Your task to perform on an android device: refresh tabs in the chrome app Image 0: 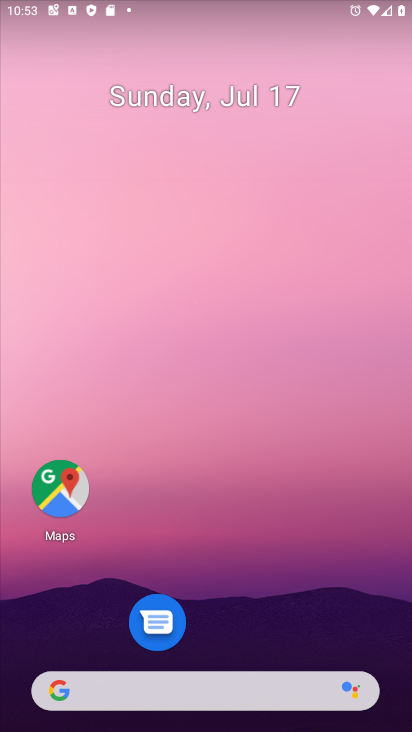
Step 0: drag from (267, 718) to (179, 154)
Your task to perform on an android device: refresh tabs in the chrome app Image 1: 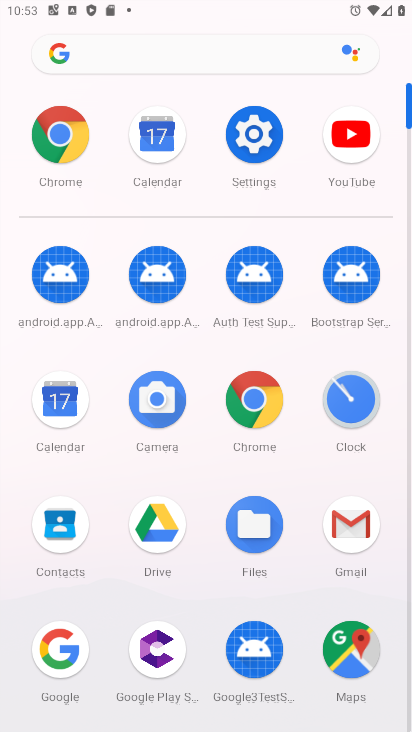
Step 1: click (56, 127)
Your task to perform on an android device: refresh tabs in the chrome app Image 2: 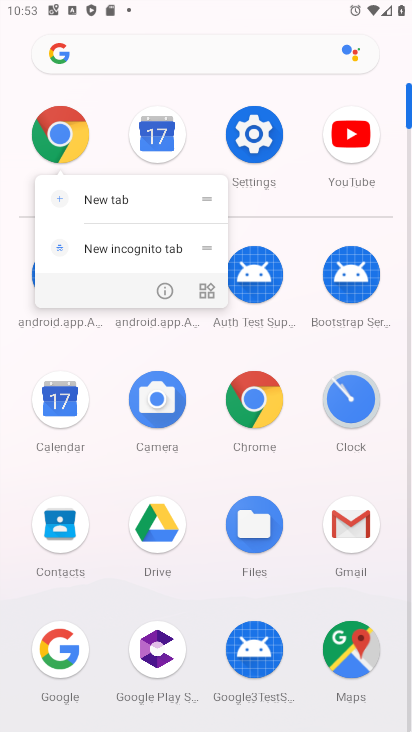
Step 2: click (56, 127)
Your task to perform on an android device: refresh tabs in the chrome app Image 3: 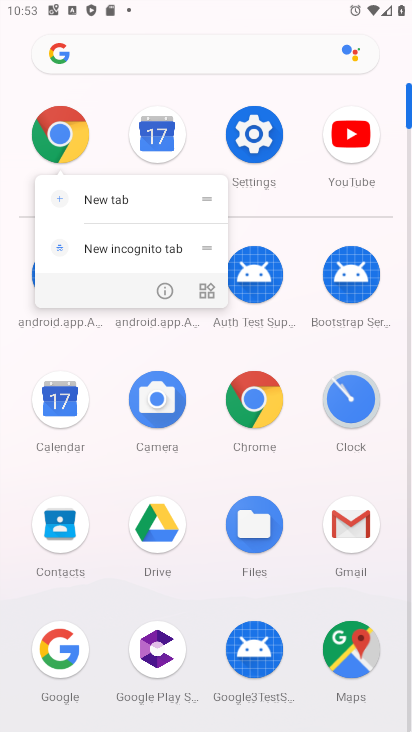
Step 3: click (56, 127)
Your task to perform on an android device: refresh tabs in the chrome app Image 4: 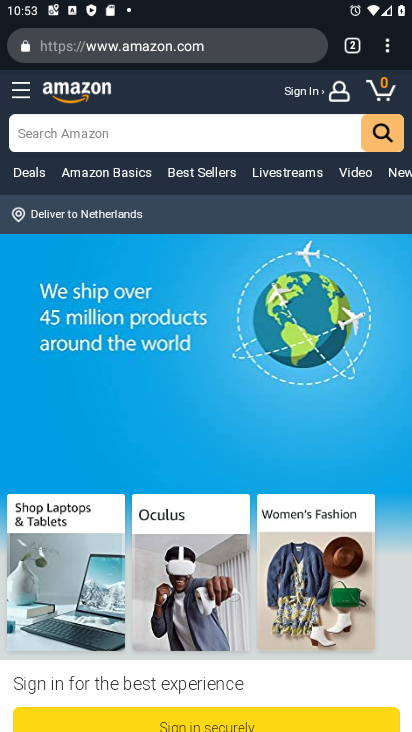
Step 4: click (394, 42)
Your task to perform on an android device: refresh tabs in the chrome app Image 5: 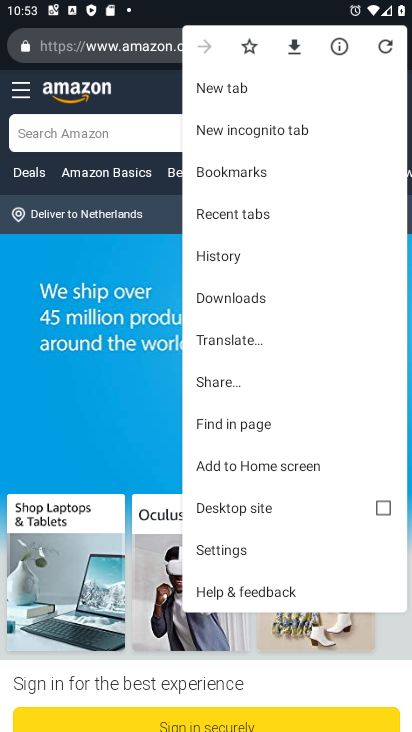
Step 5: click (388, 43)
Your task to perform on an android device: refresh tabs in the chrome app Image 6: 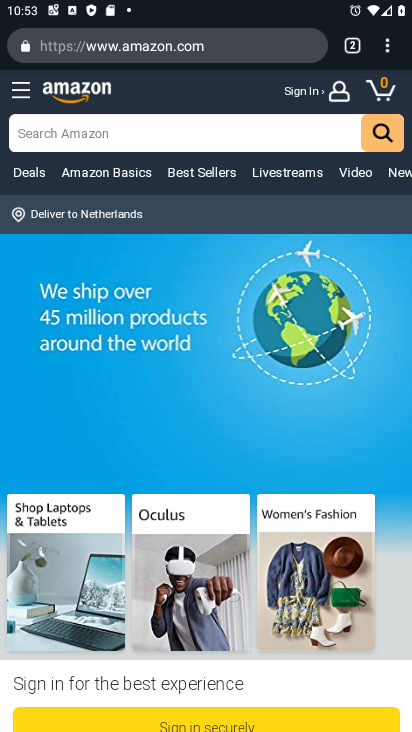
Step 6: task complete